Your task to perform on an android device: Is it going to rain tomorrow? Image 0: 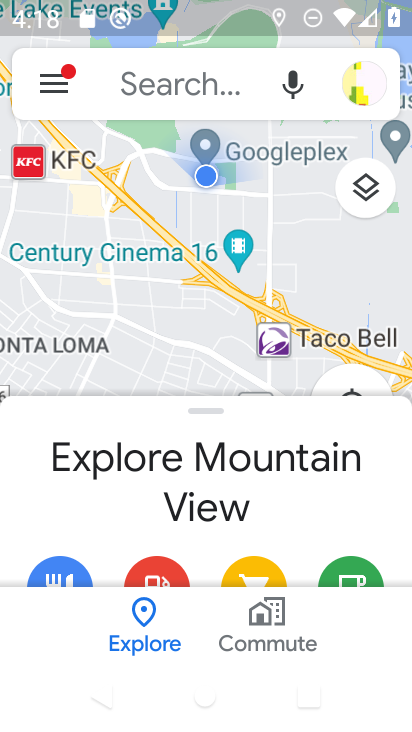
Step 0: click (57, 90)
Your task to perform on an android device: Is it going to rain tomorrow? Image 1: 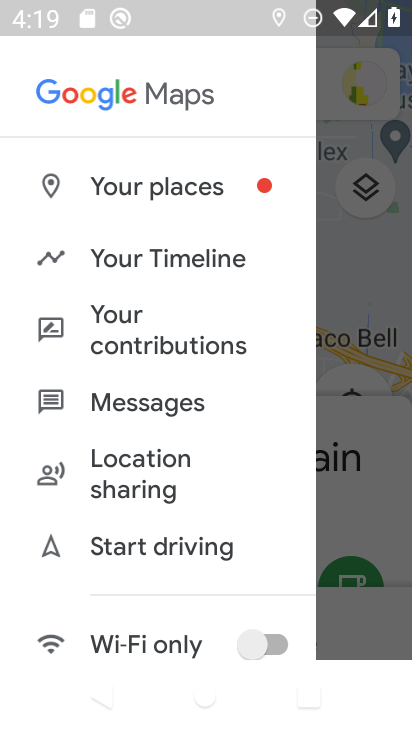
Step 1: press home button
Your task to perform on an android device: Is it going to rain tomorrow? Image 2: 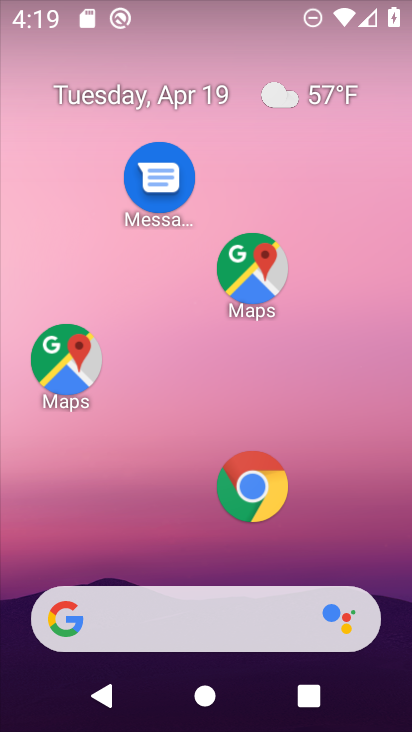
Step 2: click (344, 99)
Your task to perform on an android device: Is it going to rain tomorrow? Image 3: 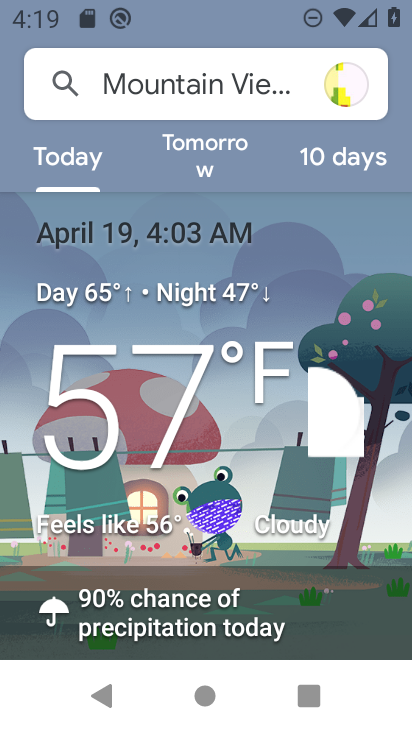
Step 3: drag from (165, 642) to (246, 155)
Your task to perform on an android device: Is it going to rain tomorrow? Image 4: 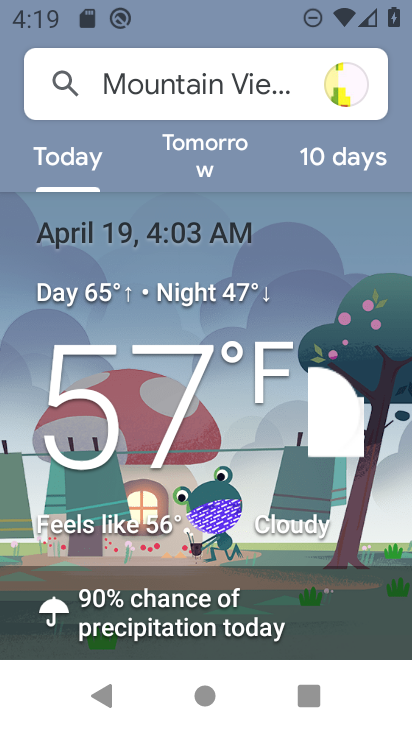
Step 4: click (198, 148)
Your task to perform on an android device: Is it going to rain tomorrow? Image 5: 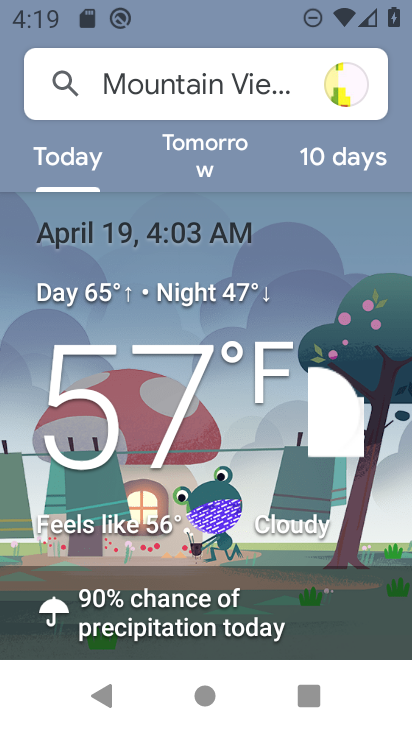
Step 5: click (200, 157)
Your task to perform on an android device: Is it going to rain tomorrow? Image 6: 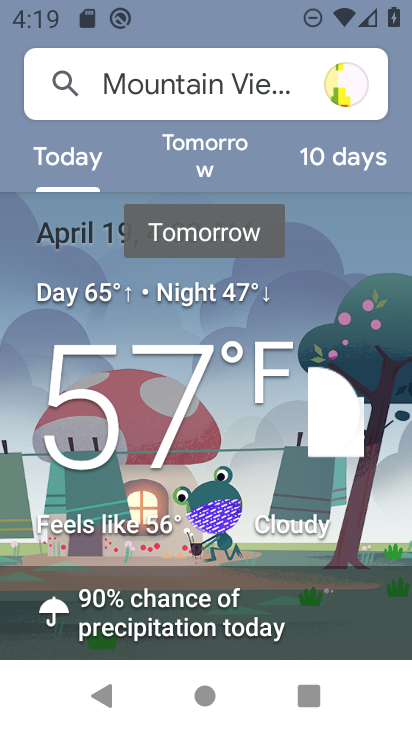
Step 6: click (211, 175)
Your task to perform on an android device: Is it going to rain tomorrow? Image 7: 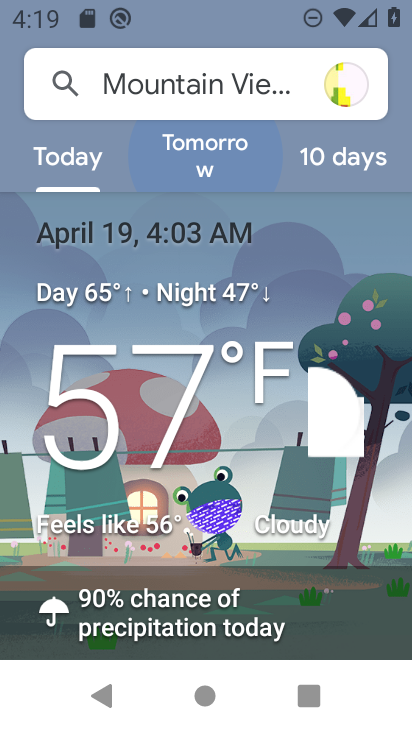
Step 7: click (213, 142)
Your task to perform on an android device: Is it going to rain tomorrow? Image 8: 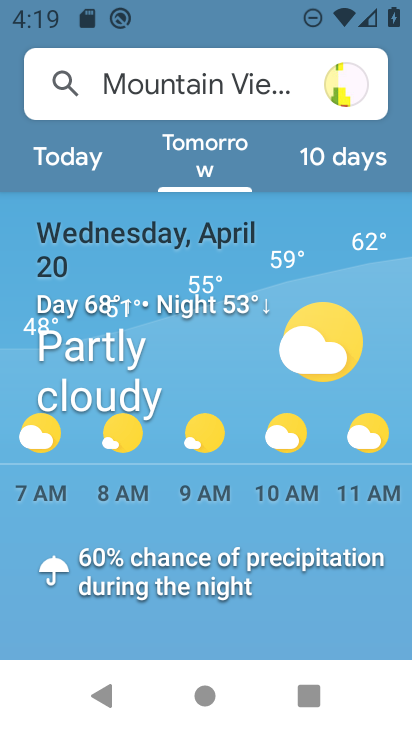
Step 8: task complete